Your task to perform on an android device: Open the map Image 0: 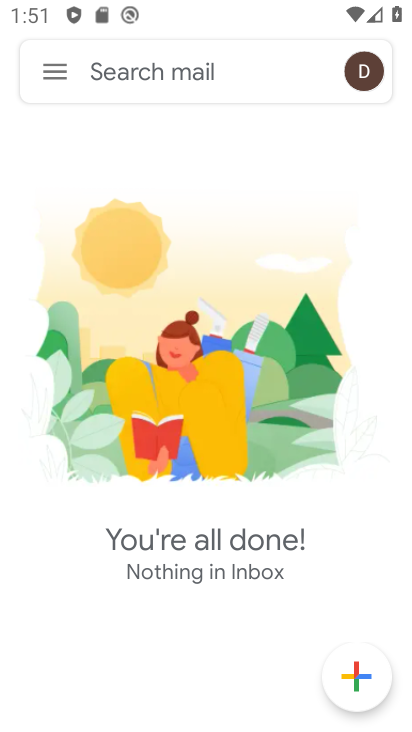
Step 0: press home button
Your task to perform on an android device: Open the map Image 1: 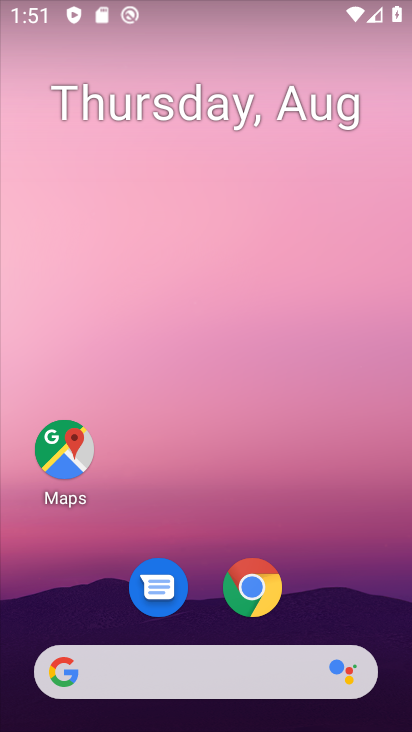
Step 1: click (62, 451)
Your task to perform on an android device: Open the map Image 2: 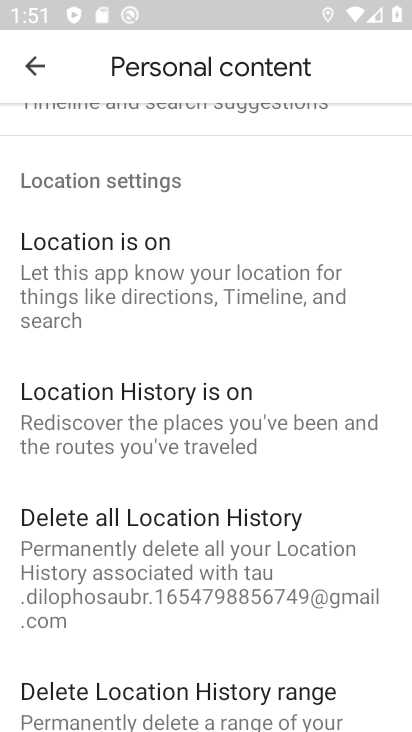
Step 2: click (39, 66)
Your task to perform on an android device: Open the map Image 3: 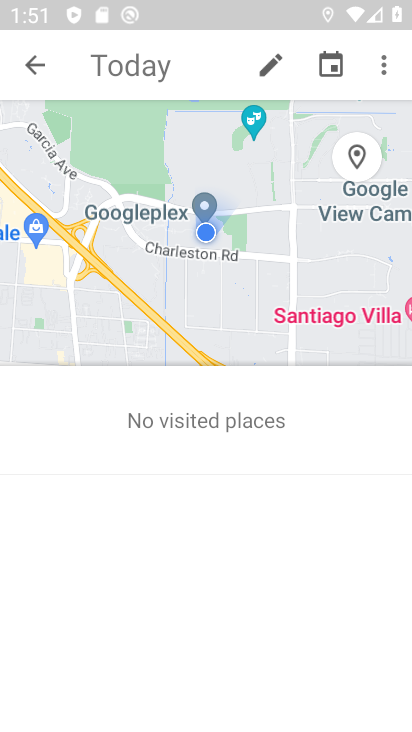
Step 3: click (30, 65)
Your task to perform on an android device: Open the map Image 4: 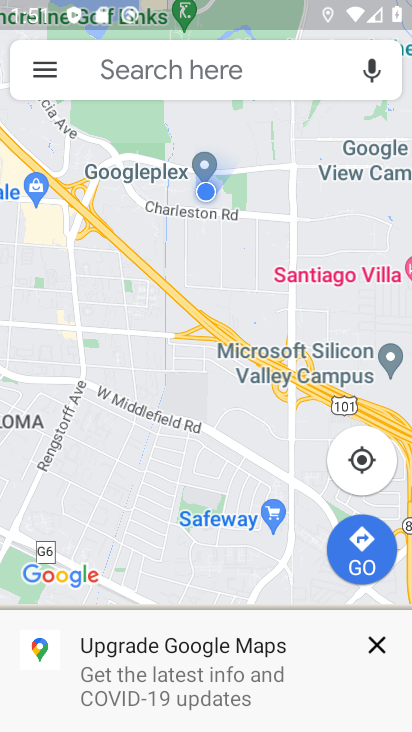
Step 4: task complete